Your task to perform on an android device: Open CNN.com Image 0: 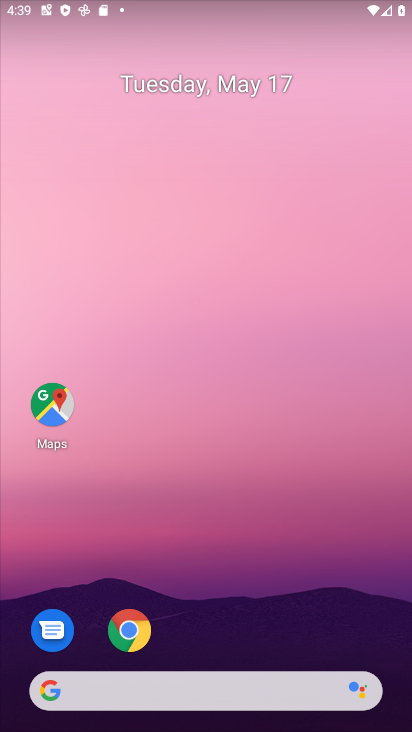
Step 0: click (128, 630)
Your task to perform on an android device: Open CNN.com Image 1: 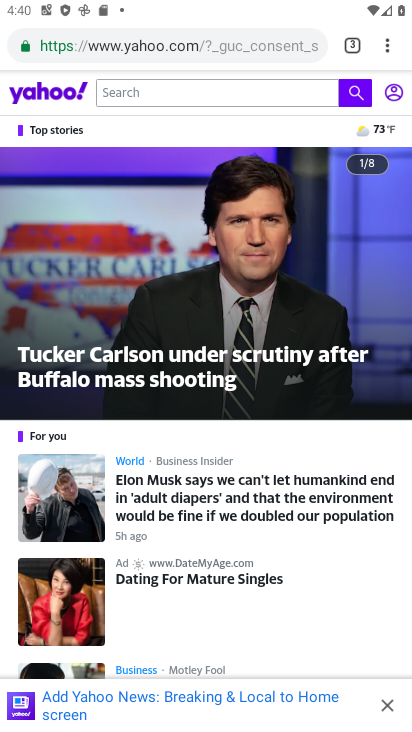
Step 1: click (386, 51)
Your task to perform on an android device: Open CNN.com Image 2: 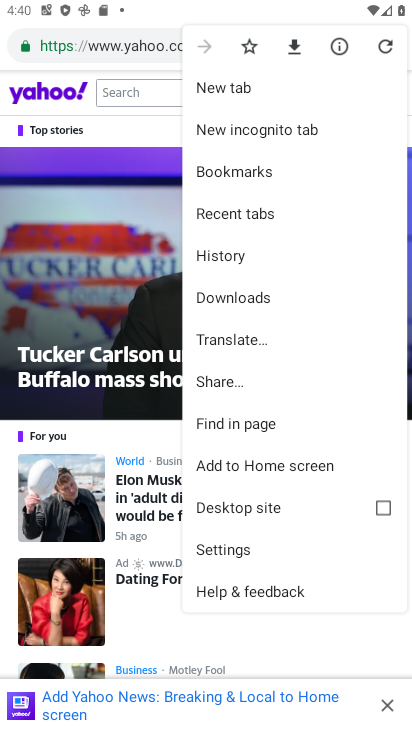
Step 2: click (232, 85)
Your task to perform on an android device: Open CNN.com Image 3: 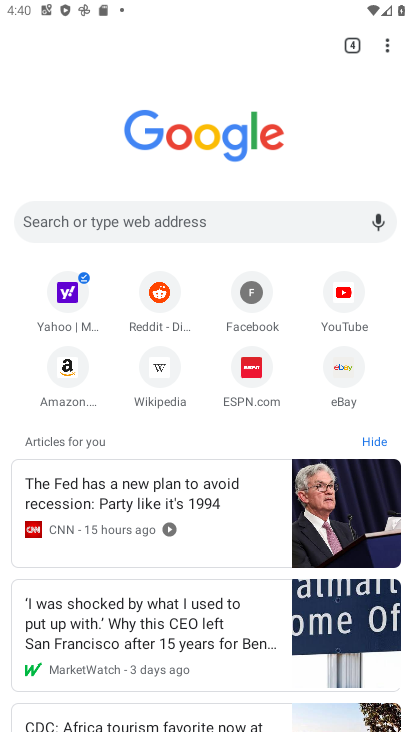
Step 3: click (139, 221)
Your task to perform on an android device: Open CNN.com Image 4: 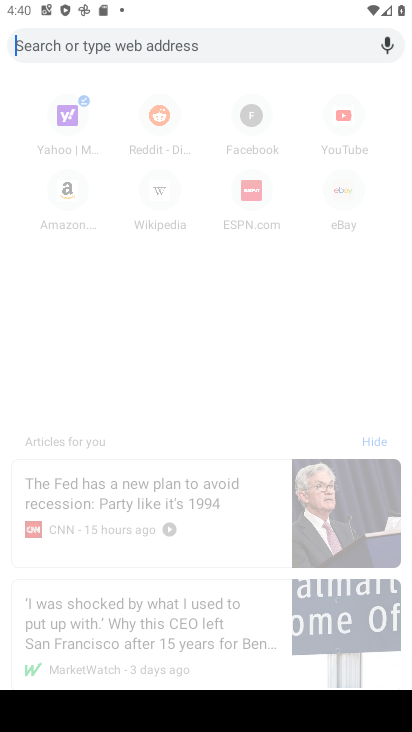
Step 4: type "CNN.com"
Your task to perform on an android device: Open CNN.com Image 5: 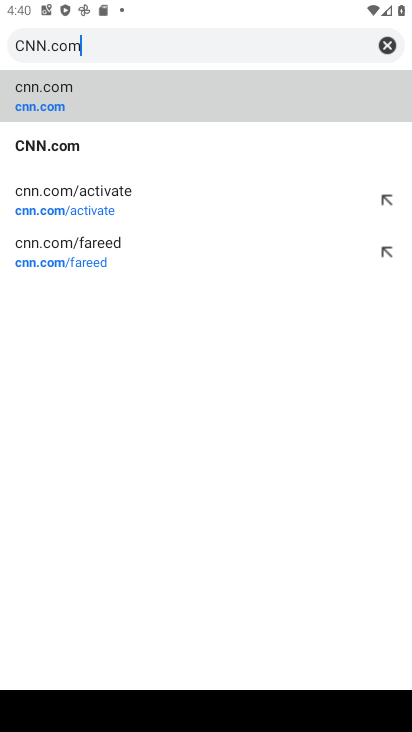
Step 5: click (46, 94)
Your task to perform on an android device: Open CNN.com Image 6: 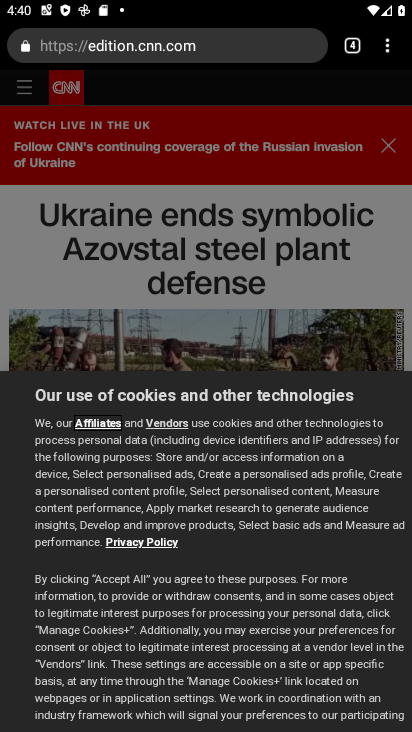
Step 6: task complete